Your task to perform on an android device: turn off smart reply in the gmail app Image 0: 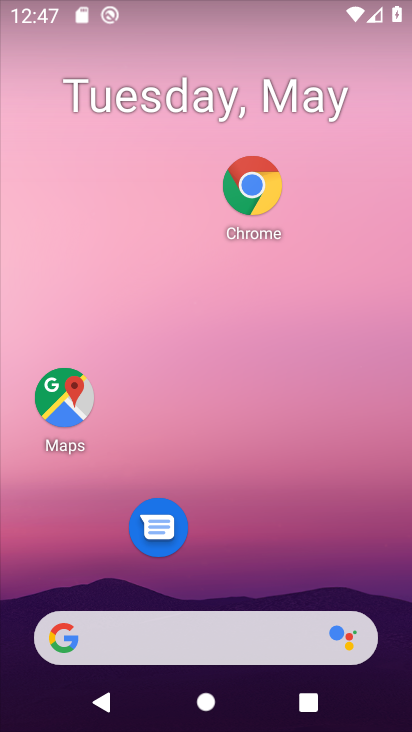
Step 0: drag from (227, 489) to (137, 58)
Your task to perform on an android device: turn off smart reply in the gmail app Image 1: 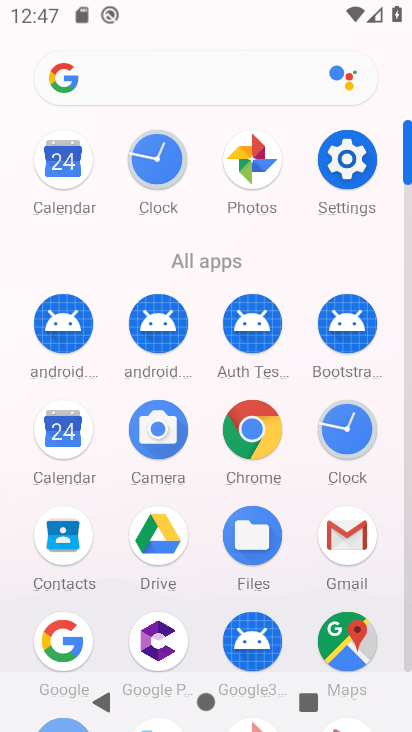
Step 1: click (349, 532)
Your task to perform on an android device: turn off smart reply in the gmail app Image 2: 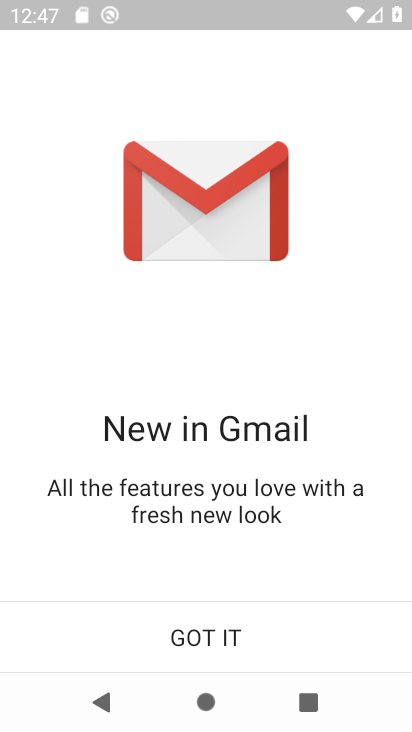
Step 2: click (187, 633)
Your task to perform on an android device: turn off smart reply in the gmail app Image 3: 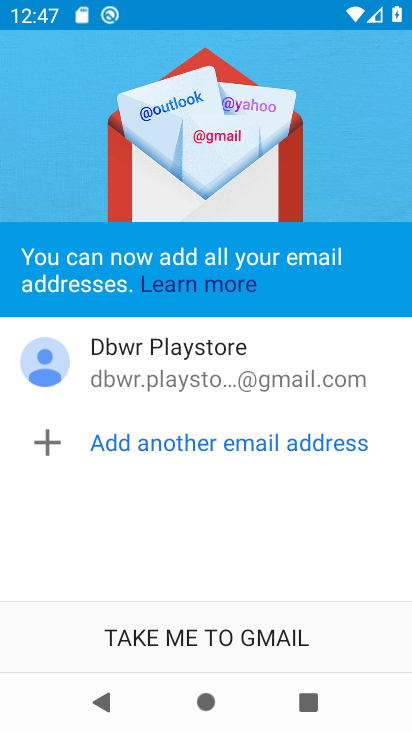
Step 3: click (218, 624)
Your task to perform on an android device: turn off smart reply in the gmail app Image 4: 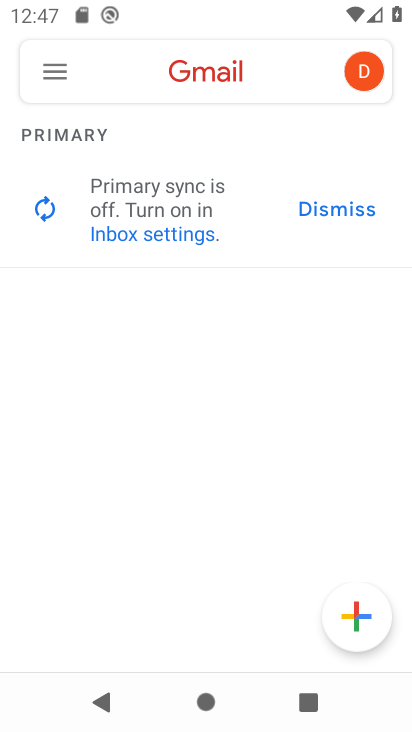
Step 4: click (56, 72)
Your task to perform on an android device: turn off smart reply in the gmail app Image 5: 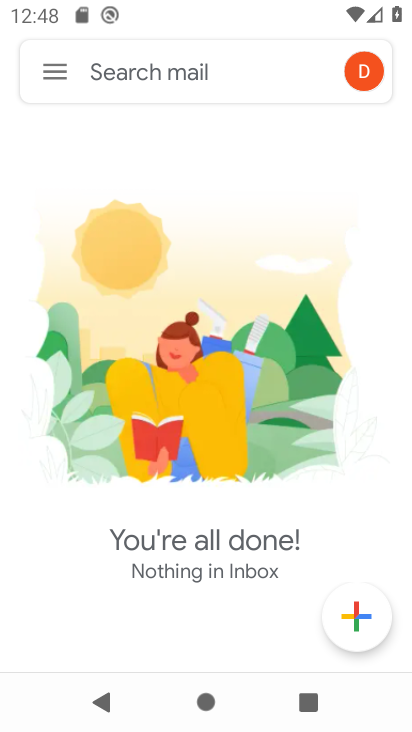
Step 5: click (41, 63)
Your task to perform on an android device: turn off smart reply in the gmail app Image 6: 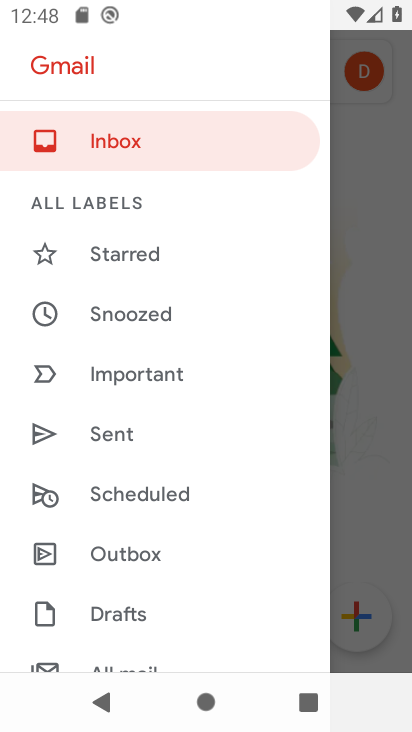
Step 6: drag from (161, 576) to (161, 146)
Your task to perform on an android device: turn off smart reply in the gmail app Image 7: 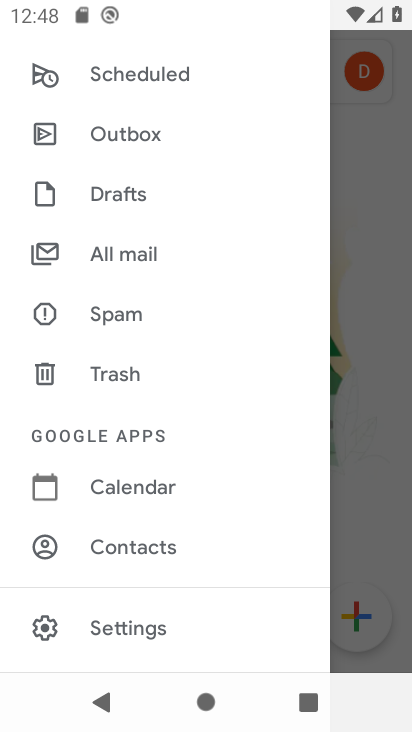
Step 7: click (121, 622)
Your task to perform on an android device: turn off smart reply in the gmail app Image 8: 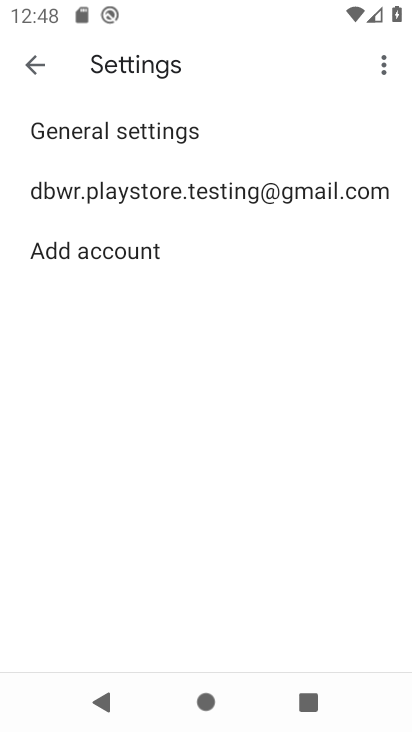
Step 8: click (135, 186)
Your task to perform on an android device: turn off smart reply in the gmail app Image 9: 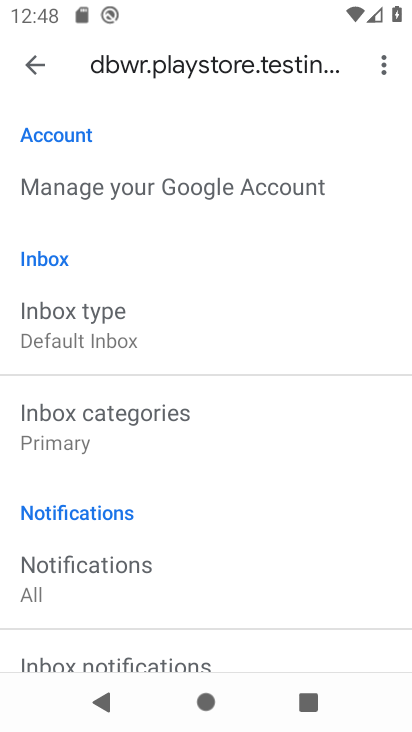
Step 9: drag from (194, 482) to (207, 173)
Your task to perform on an android device: turn off smart reply in the gmail app Image 10: 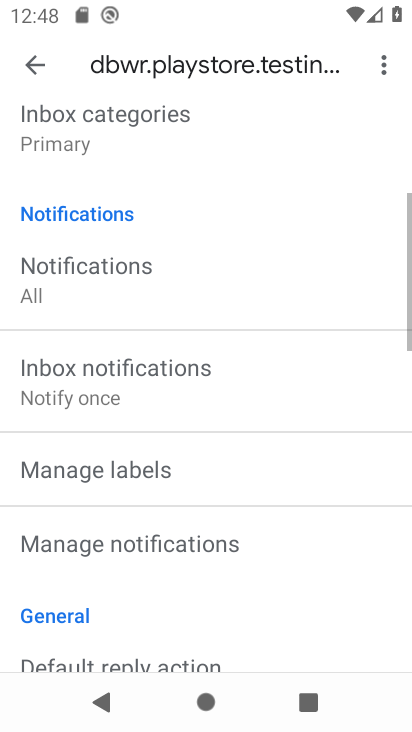
Step 10: drag from (213, 451) to (206, 107)
Your task to perform on an android device: turn off smart reply in the gmail app Image 11: 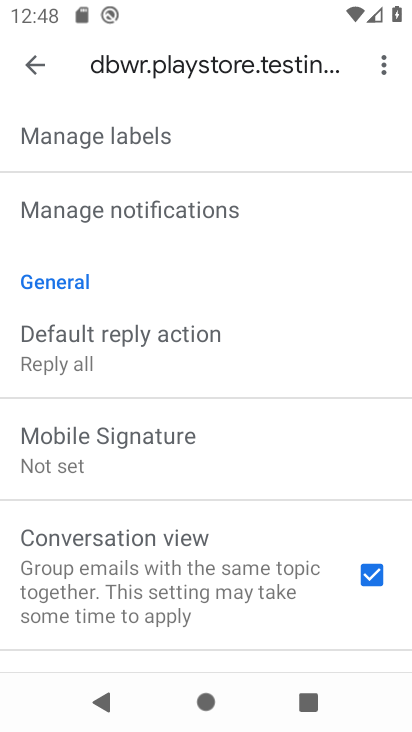
Step 11: drag from (226, 521) to (224, 282)
Your task to perform on an android device: turn off smart reply in the gmail app Image 12: 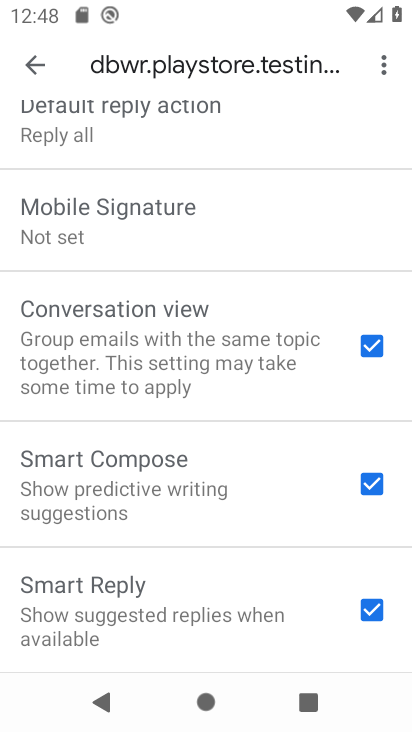
Step 12: drag from (204, 586) to (203, 280)
Your task to perform on an android device: turn off smart reply in the gmail app Image 13: 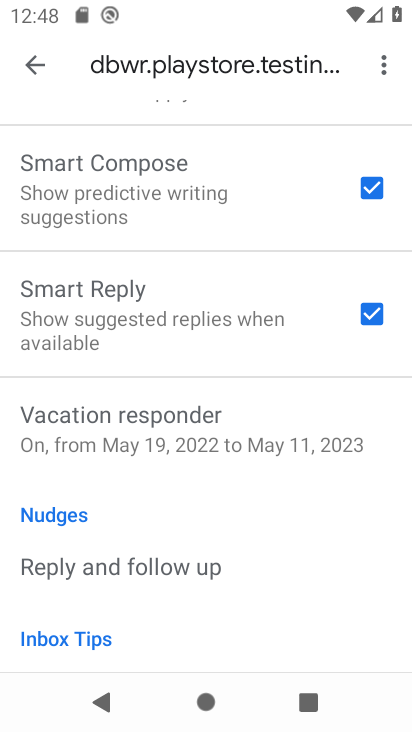
Step 13: click (367, 309)
Your task to perform on an android device: turn off smart reply in the gmail app Image 14: 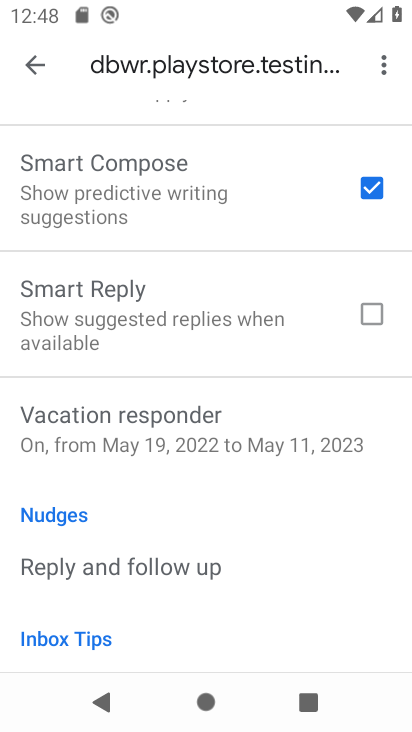
Step 14: task complete